Your task to perform on an android device: What's the weather? Image 0: 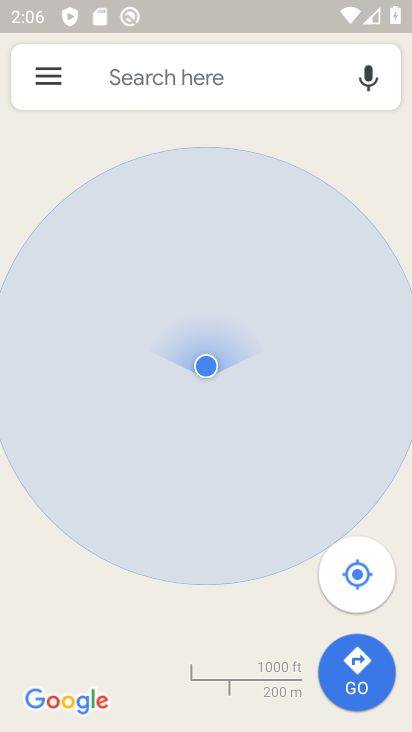
Step 0: press home button
Your task to perform on an android device: What's the weather? Image 1: 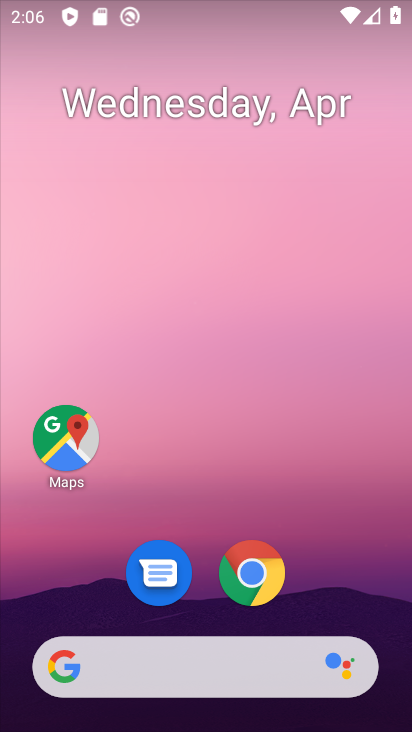
Step 1: click (181, 667)
Your task to perform on an android device: What's the weather? Image 2: 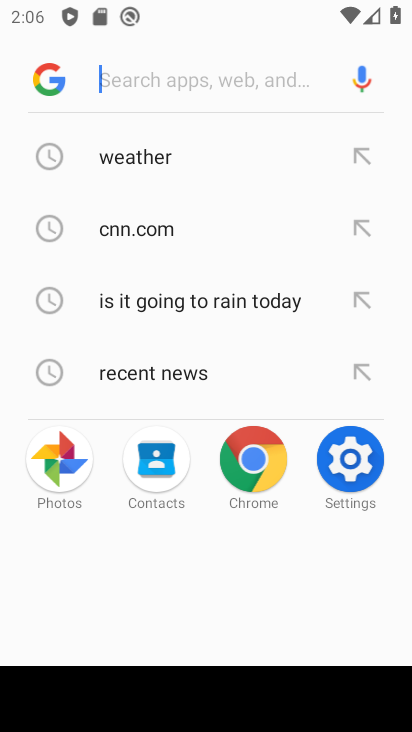
Step 2: click (148, 157)
Your task to perform on an android device: What's the weather? Image 3: 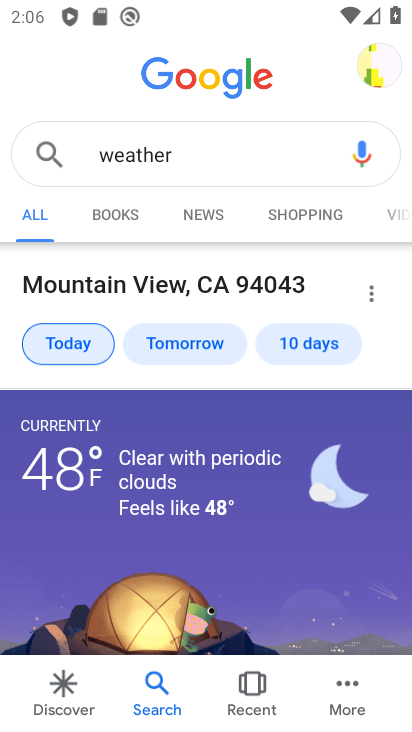
Step 3: task complete